Your task to perform on an android device: Open battery settings Image 0: 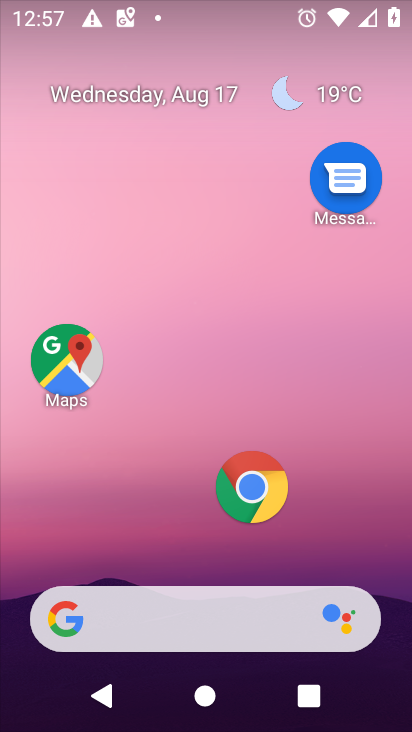
Step 0: drag from (165, 529) to (195, 0)
Your task to perform on an android device: Open battery settings Image 1: 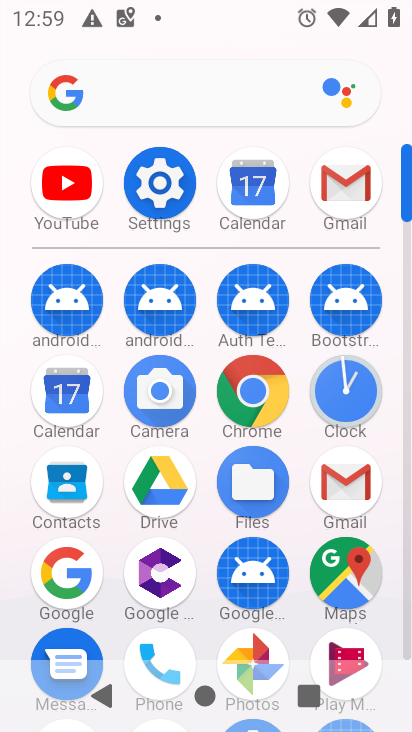
Step 1: click (151, 157)
Your task to perform on an android device: Open battery settings Image 2: 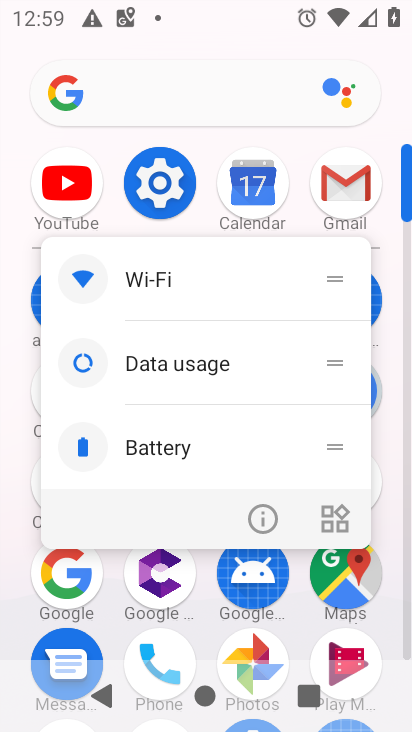
Step 2: click (169, 177)
Your task to perform on an android device: Open battery settings Image 3: 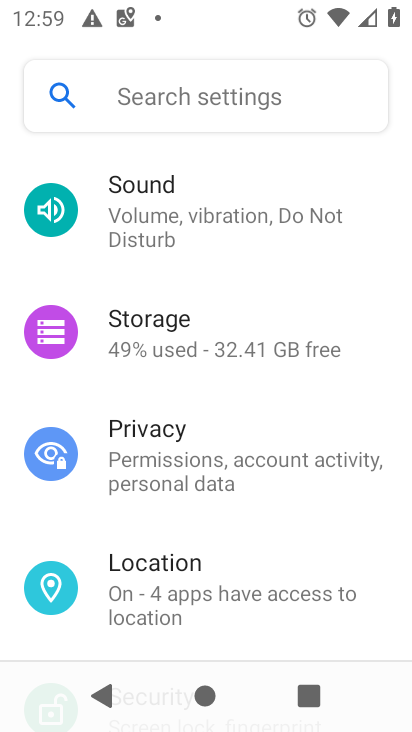
Step 3: drag from (181, 611) to (268, 105)
Your task to perform on an android device: Open battery settings Image 4: 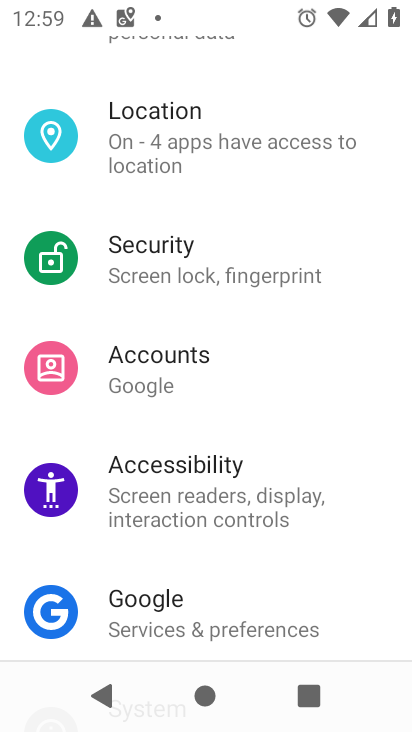
Step 4: click (189, 585)
Your task to perform on an android device: Open battery settings Image 5: 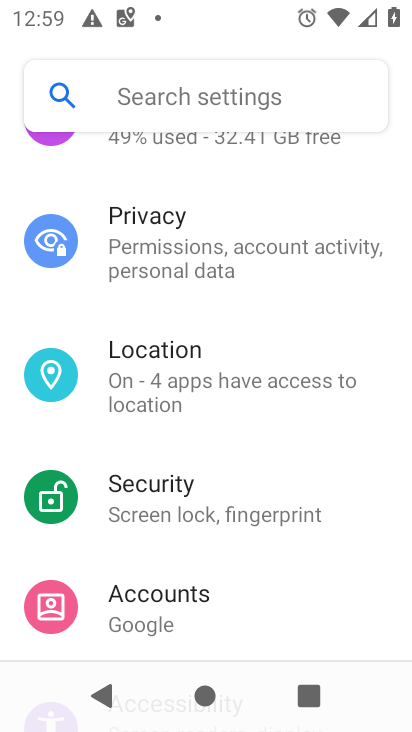
Step 5: drag from (208, 315) to (208, 617)
Your task to perform on an android device: Open battery settings Image 6: 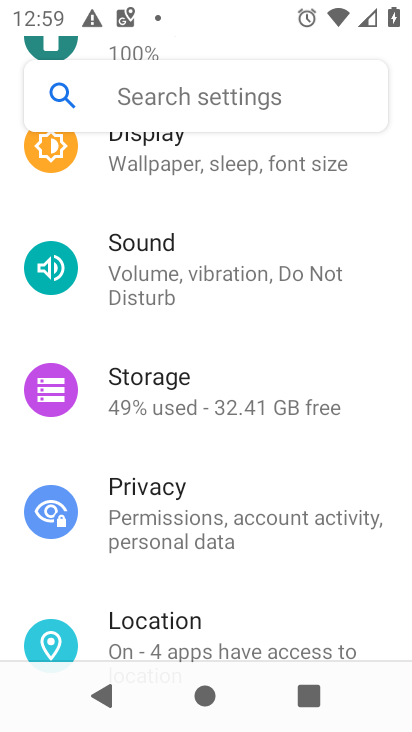
Step 6: drag from (233, 187) to (195, 619)
Your task to perform on an android device: Open battery settings Image 7: 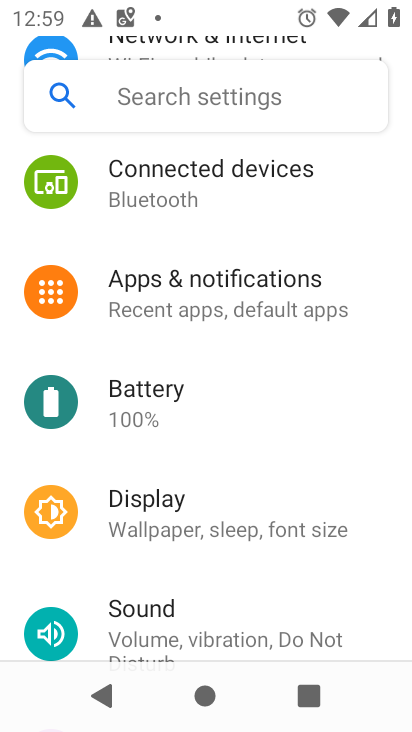
Step 7: click (173, 401)
Your task to perform on an android device: Open battery settings Image 8: 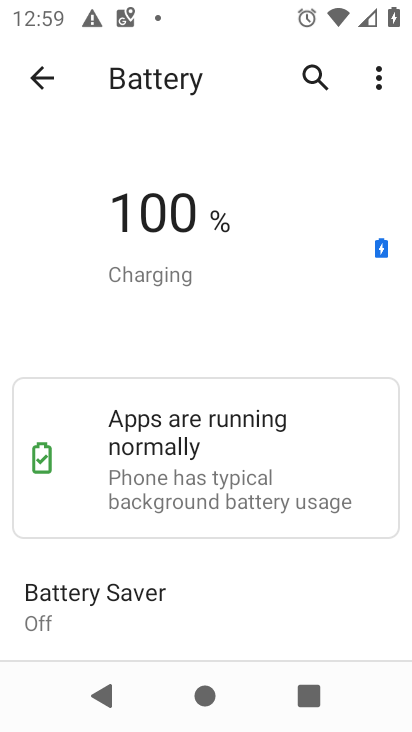
Step 8: task complete